Your task to perform on an android device: Open Amazon Image 0: 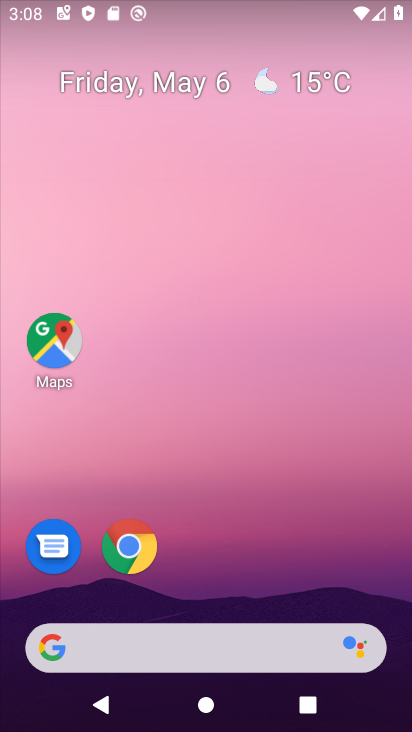
Step 0: click (133, 544)
Your task to perform on an android device: Open Amazon Image 1: 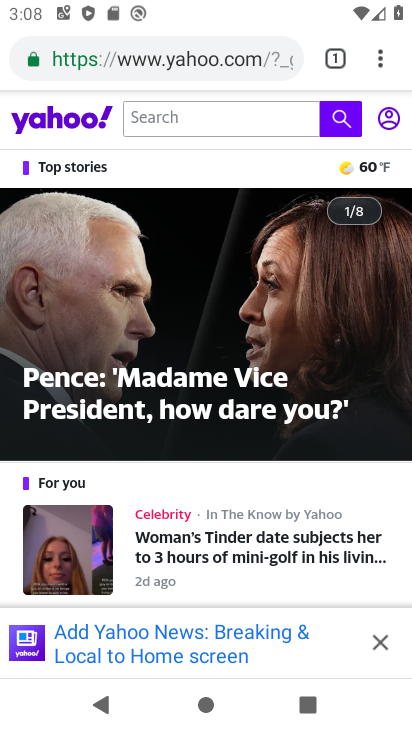
Step 1: click (336, 65)
Your task to perform on an android device: Open Amazon Image 2: 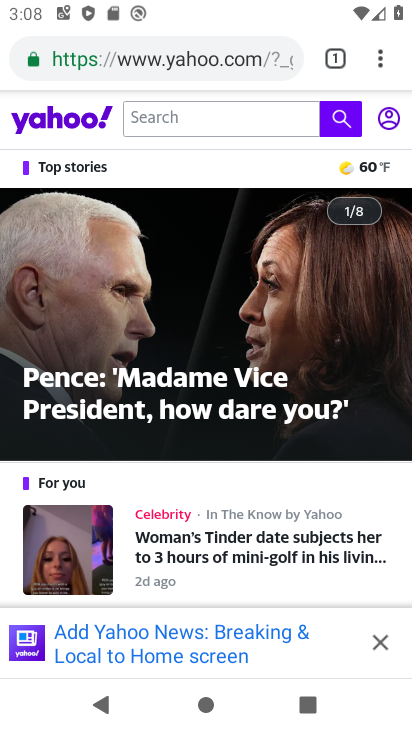
Step 2: click (328, 62)
Your task to perform on an android device: Open Amazon Image 3: 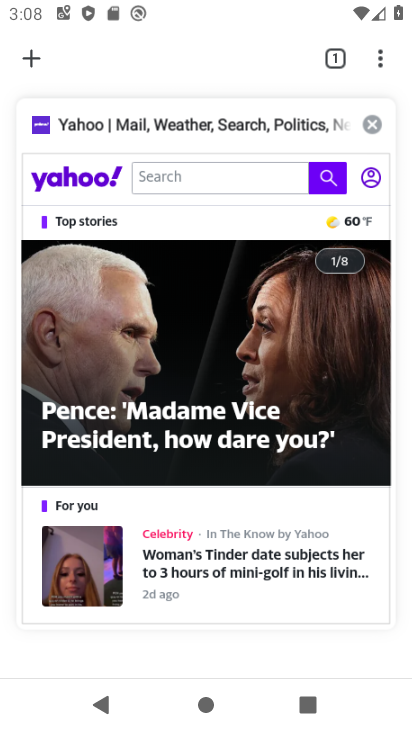
Step 3: click (40, 64)
Your task to perform on an android device: Open Amazon Image 4: 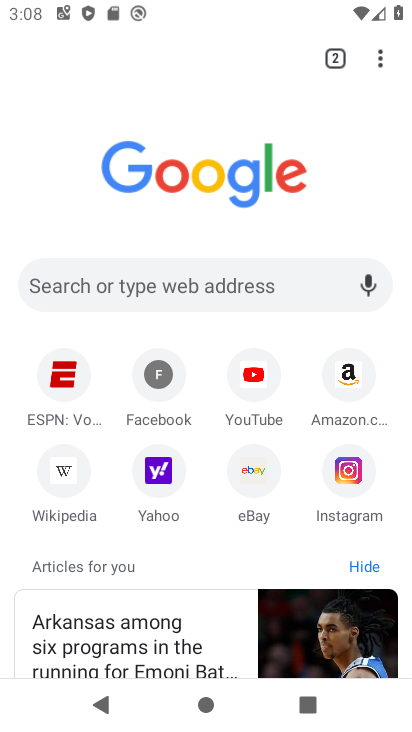
Step 4: click (364, 381)
Your task to perform on an android device: Open Amazon Image 5: 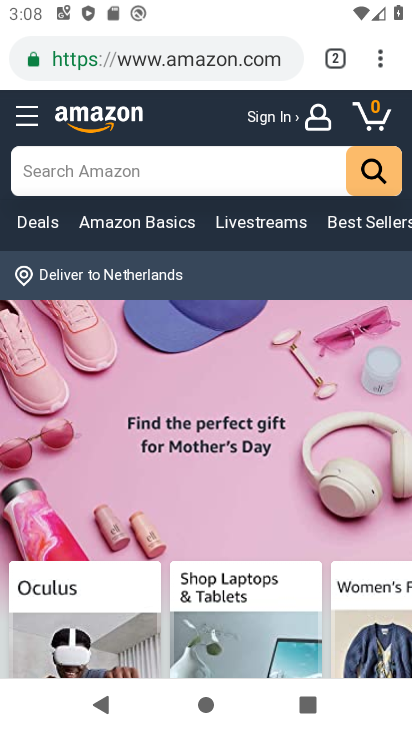
Step 5: task complete